Your task to perform on an android device: check the backup settings in the google photos Image 0: 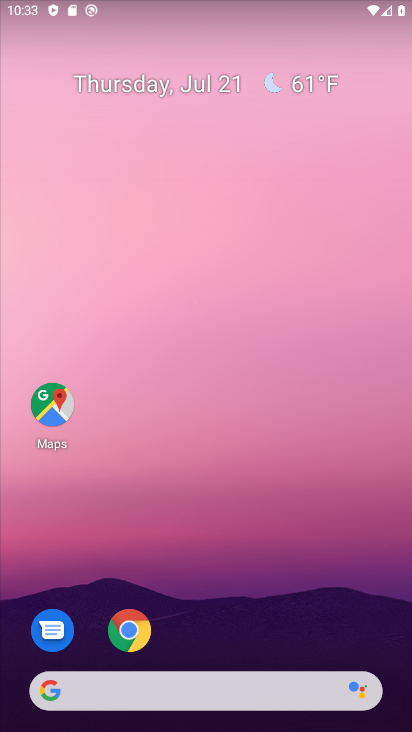
Step 0: click (293, 29)
Your task to perform on an android device: check the backup settings in the google photos Image 1: 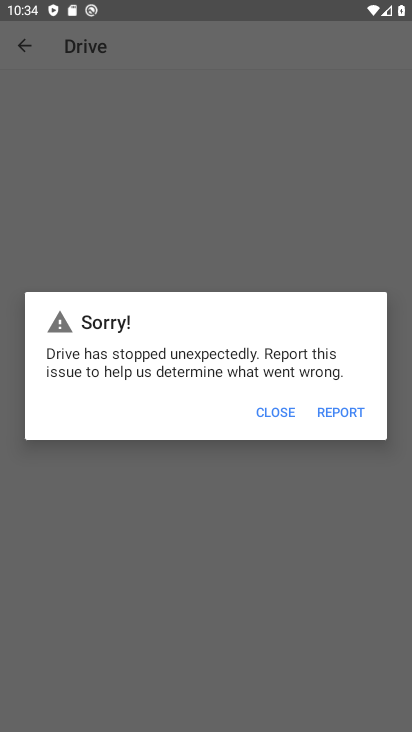
Step 1: press home button
Your task to perform on an android device: check the backup settings in the google photos Image 2: 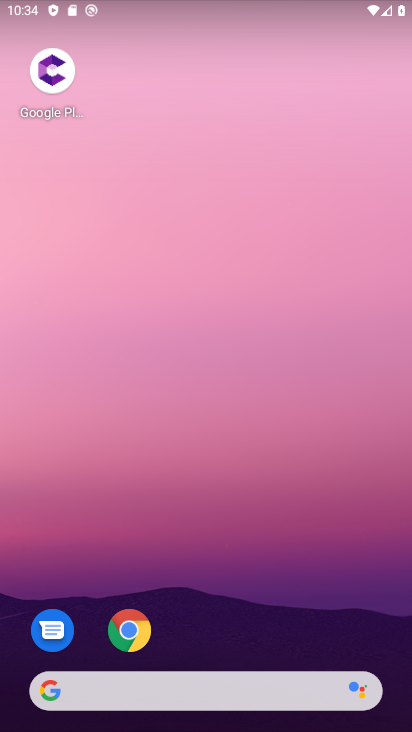
Step 2: drag from (237, 650) to (284, 282)
Your task to perform on an android device: check the backup settings in the google photos Image 3: 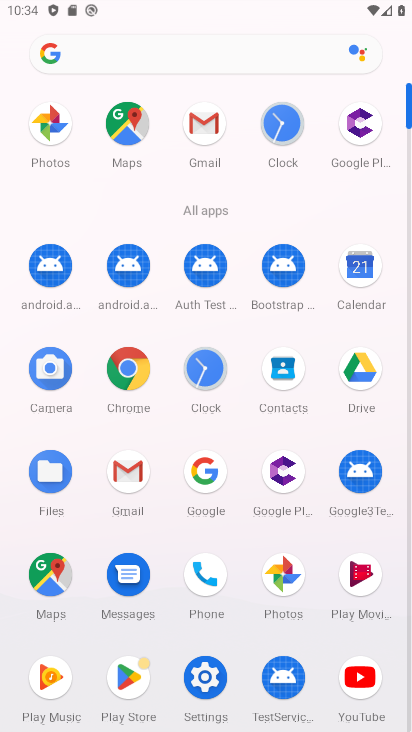
Step 3: click (288, 578)
Your task to perform on an android device: check the backup settings in the google photos Image 4: 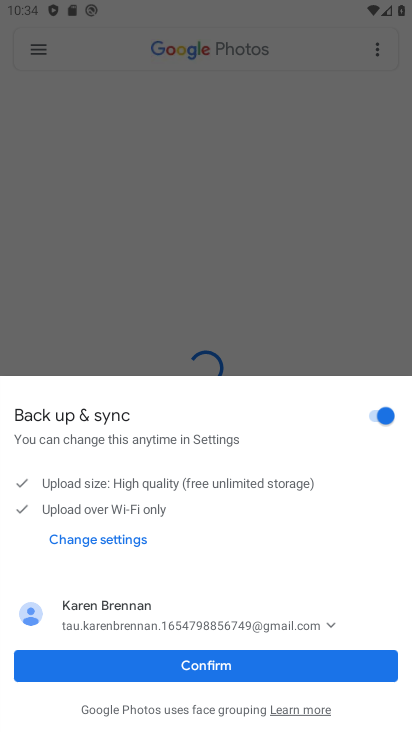
Step 4: click (203, 672)
Your task to perform on an android device: check the backup settings in the google photos Image 5: 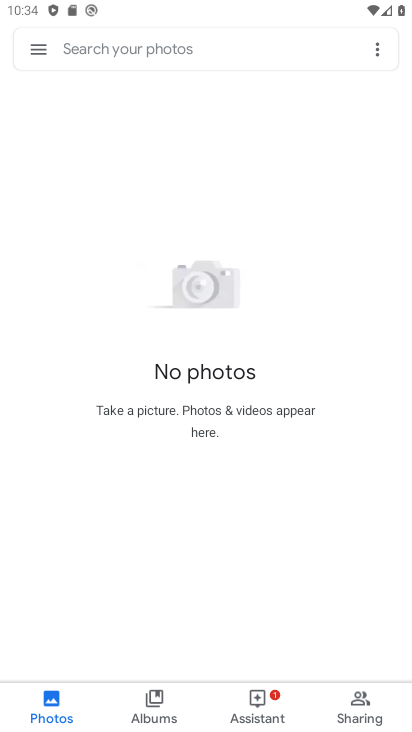
Step 5: click (35, 50)
Your task to perform on an android device: check the backup settings in the google photos Image 6: 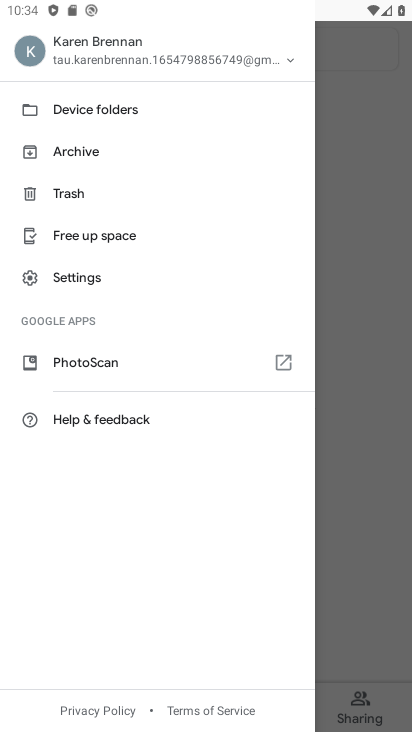
Step 6: click (83, 278)
Your task to perform on an android device: check the backup settings in the google photos Image 7: 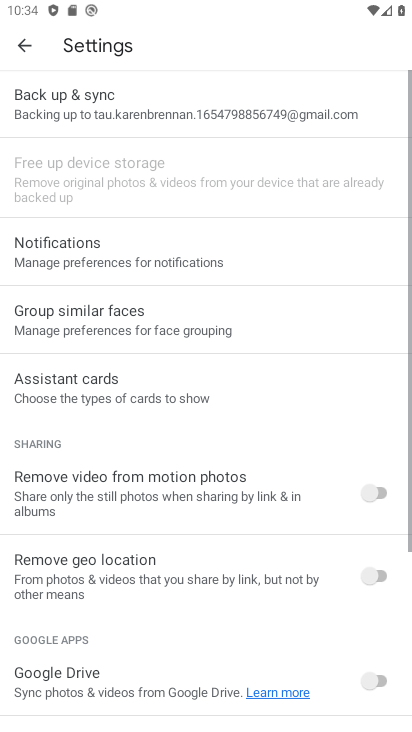
Step 7: click (111, 111)
Your task to perform on an android device: check the backup settings in the google photos Image 8: 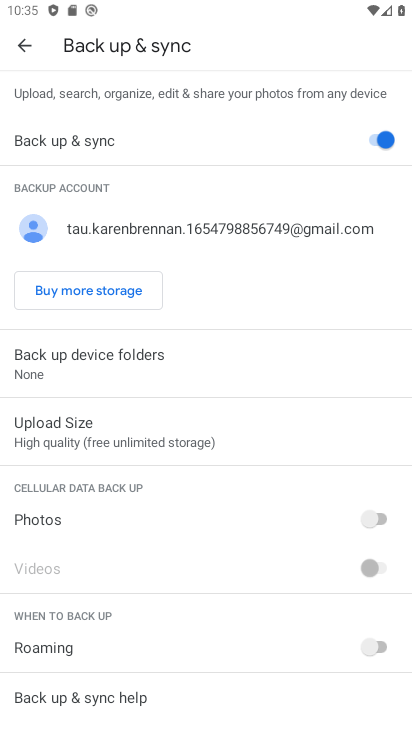
Step 8: task complete